Your task to perform on an android device: turn off sleep mode Image 0: 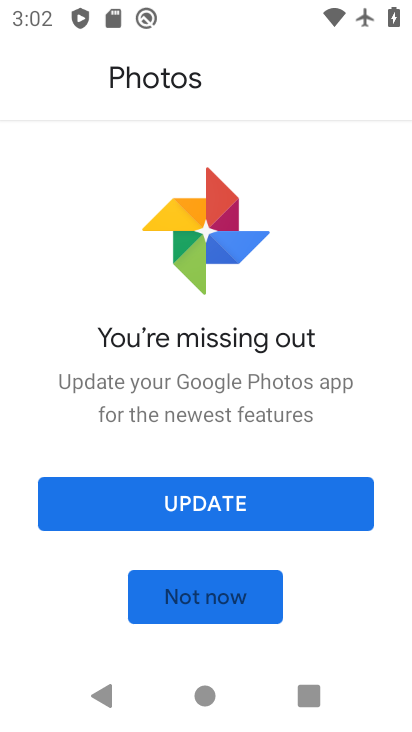
Step 0: press home button
Your task to perform on an android device: turn off sleep mode Image 1: 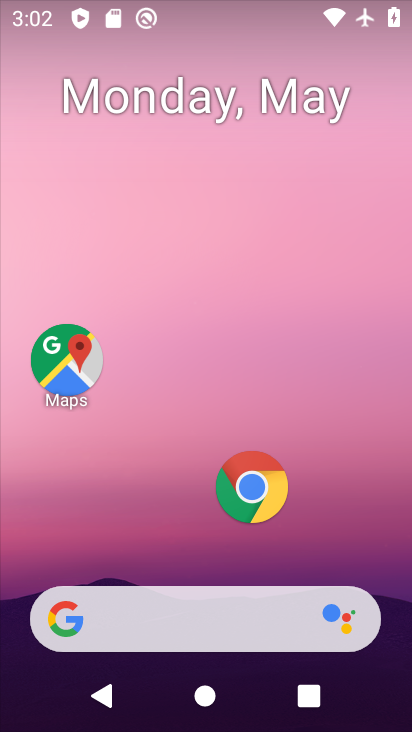
Step 1: drag from (167, 553) to (152, 0)
Your task to perform on an android device: turn off sleep mode Image 2: 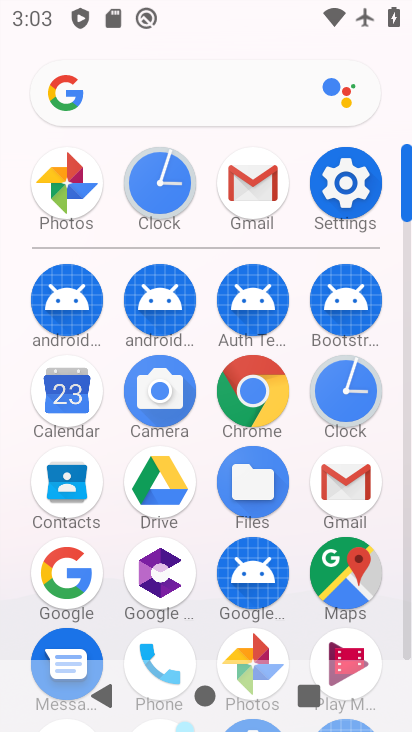
Step 2: click (347, 187)
Your task to perform on an android device: turn off sleep mode Image 3: 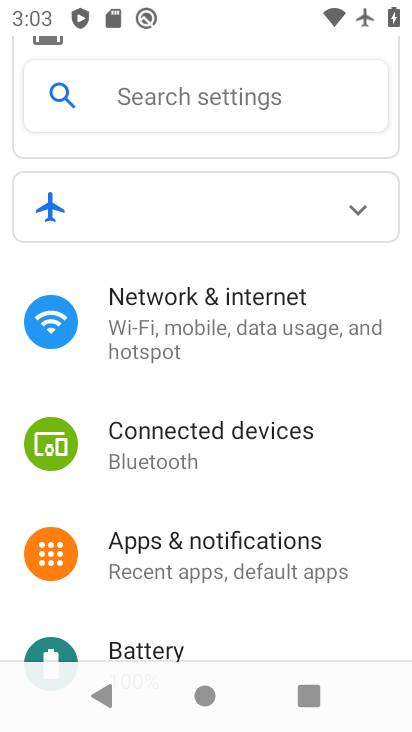
Step 3: drag from (169, 548) to (167, 349)
Your task to perform on an android device: turn off sleep mode Image 4: 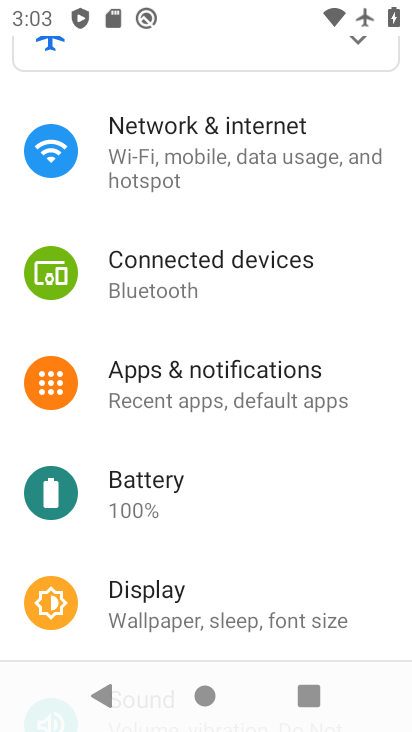
Step 4: click (176, 597)
Your task to perform on an android device: turn off sleep mode Image 5: 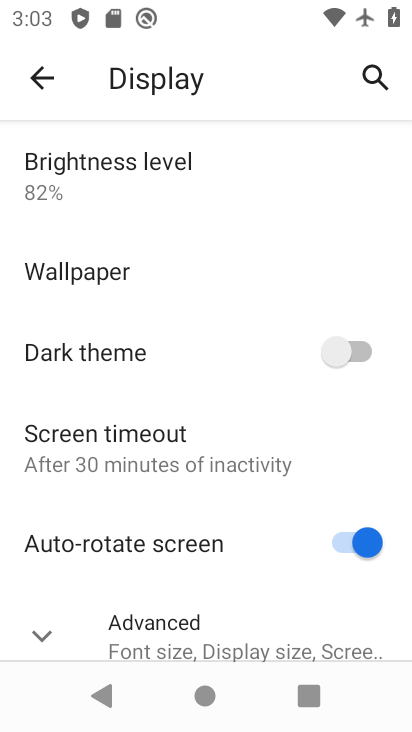
Step 5: drag from (185, 632) to (209, 272)
Your task to perform on an android device: turn off sleep mode Image 6: 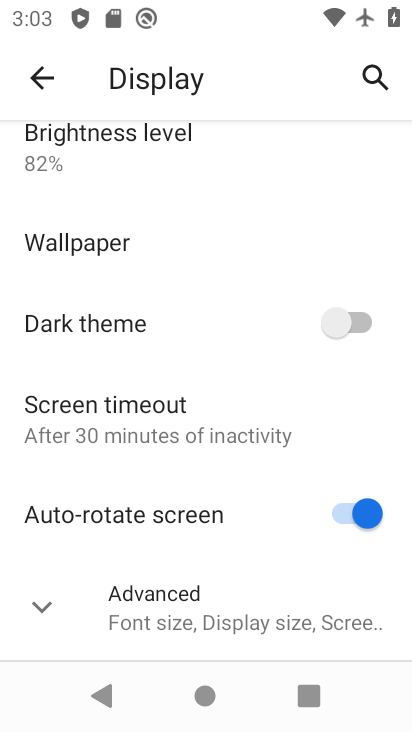
Step 6: click (119, 606)
Your task to perform on an android device: turn off sleep mode Image 7: 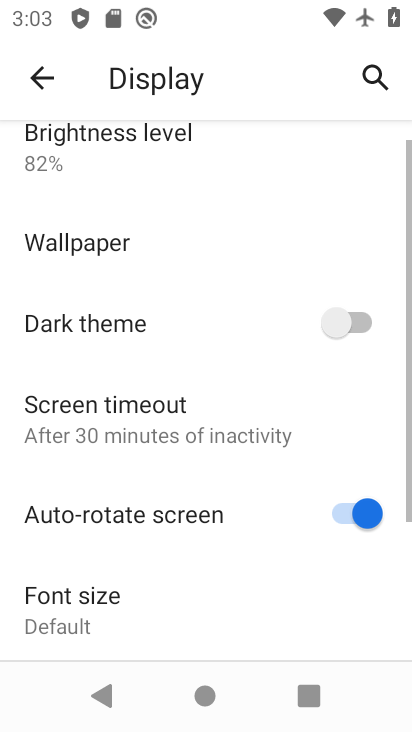
Step 7: task complete